Your task to perform on an android device: Open the calendar app, open the side menu, and click the "Day" option Image 0: 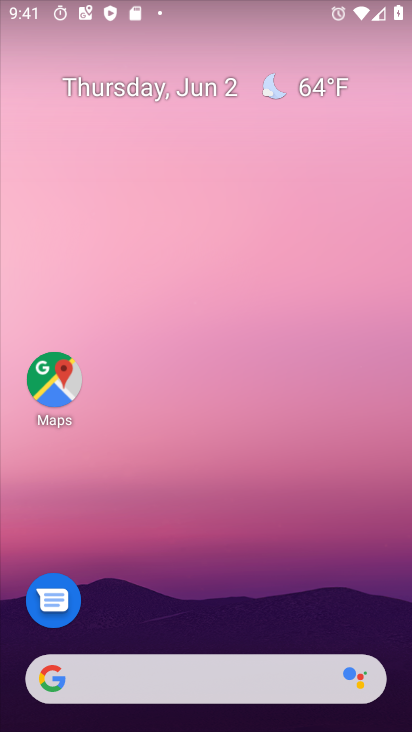
Step 0: drag from (195, 611) to (208, 72)
Your task to perform on an android device: Open the calendar app, open the side menu, and click the "Day" option Image 1: 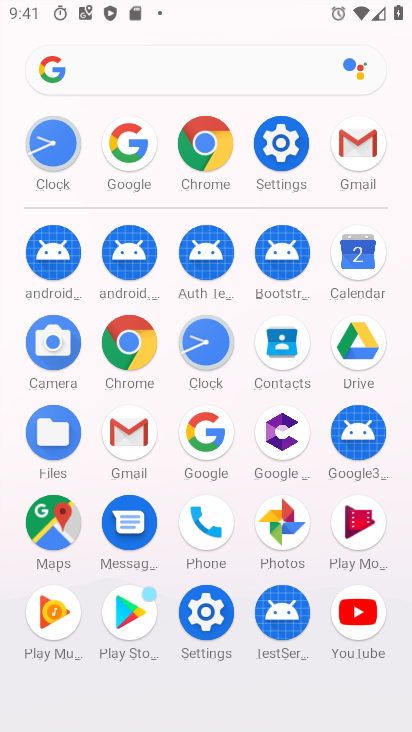
Step 1: click (348, 256)
Your task to perform on an android device: Open the calendar app, open the side menu, and click the "Day" option Image 2: 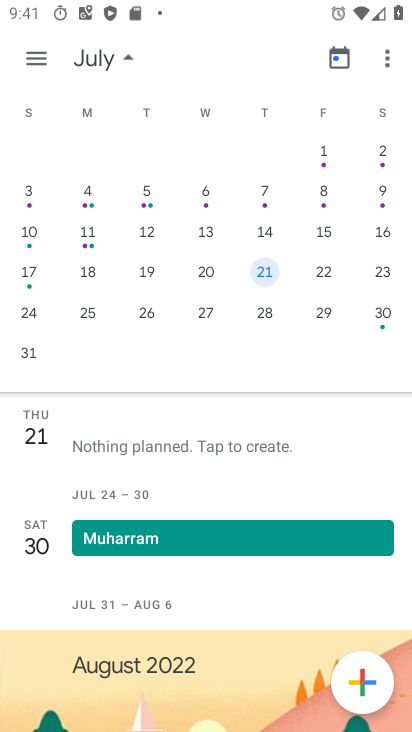
Step 2: drag from (43, 365) to (407, 316)
Your task to perform on an android device: Open the calendar app, open the side menu, and click the "Day" option Image 3: 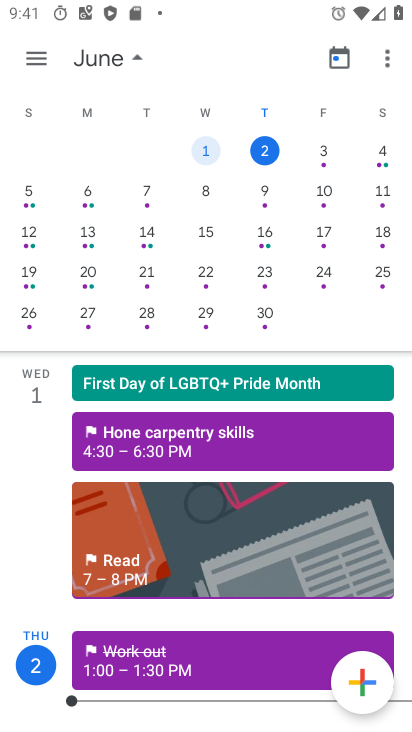
Step 3: click (268, 147)
Your task to perform on an android device: Open the calendar app, open the side menu, and click the "Day" option Image 4: 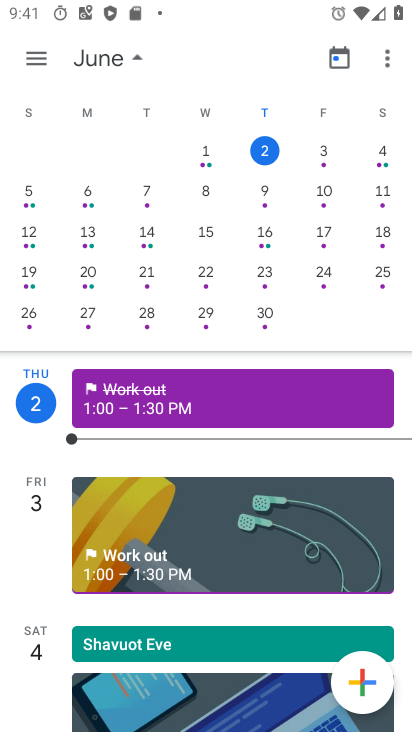
Step 4: click (31, 64)
Your task to perform on an android device: Open the calendar app, open the side menu, and click the "Day" option Image 5: 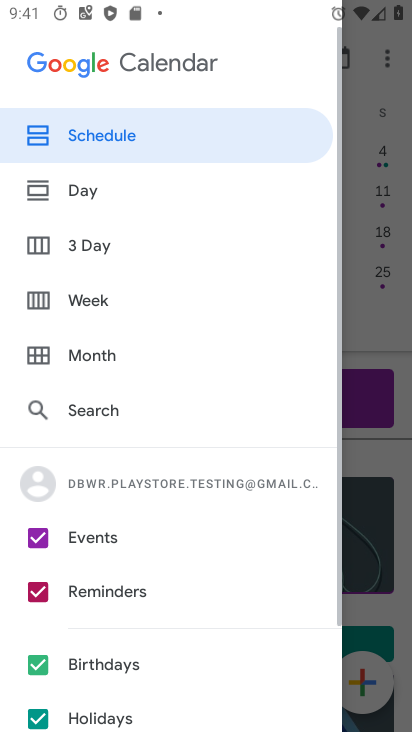
Step 5: click (92, 199)
Your task to perform on an android device: Open the calendar app, open the side menu, and click the "Day" option Image 6: 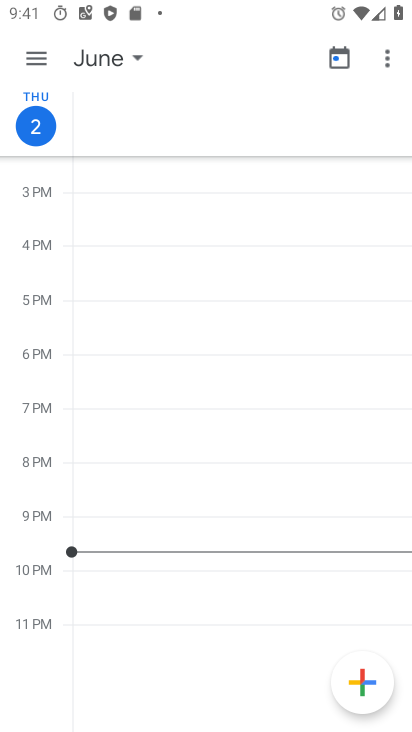
Step 6: task complete